Your task to perform on an android device: Search for vegetarian restaurants on Maps Image 0: 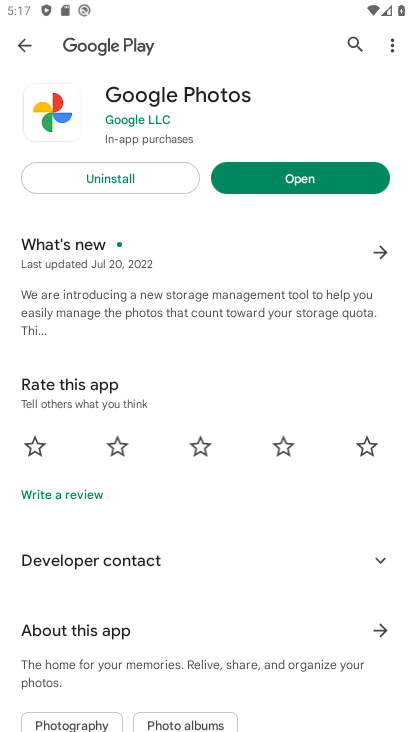
Step 0: press home button
Your task to perform on an android device: Search for vegetarian restaurants on Maps Image 1: 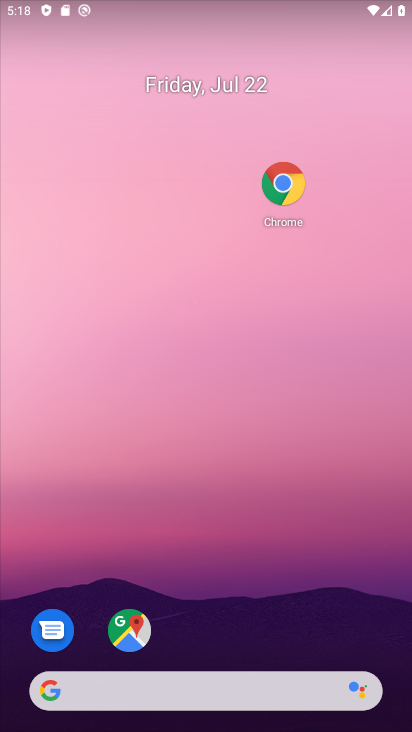
Step 1: click (121, 627)
Your task to perform on an android device: Search for vegetarian restaurants on Maps Image 2: 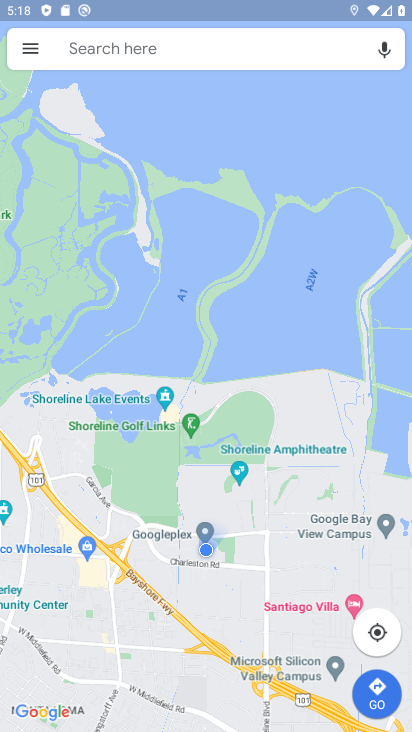
Step 2: click (150, 39)
Your task to perform on an android device: Search for vegetarian restaurants on Maps Image 3: 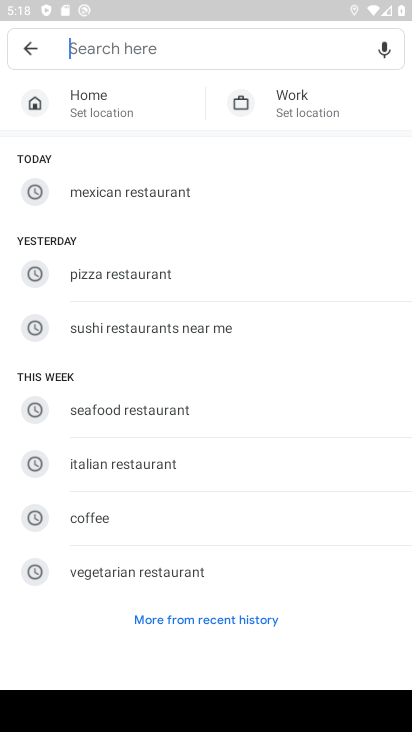
Step 3: click (101, 567)
Your task to perform on an android device: Search for vegetarian restaurants on Maps Image 4: 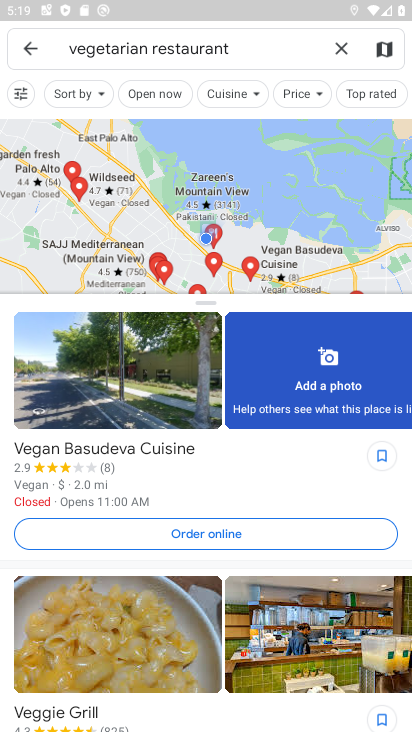
Step 4: task complete